Your task to perform on an android device: Show me the alarms in the clock app Image 0: 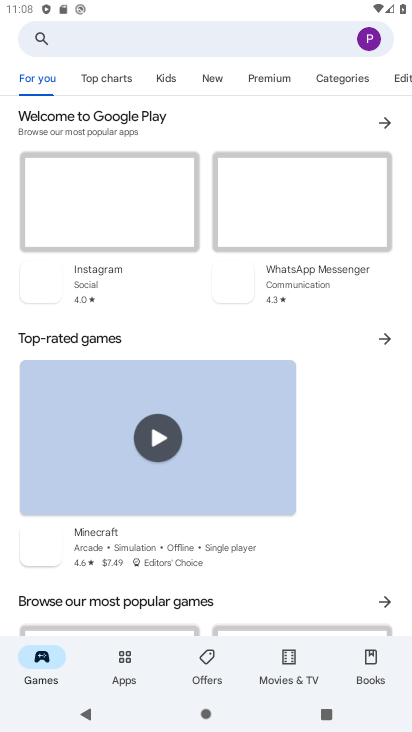
Step 0: press home button
Your task to perform on an android device: Show me the alarms in the clock app Image 1: 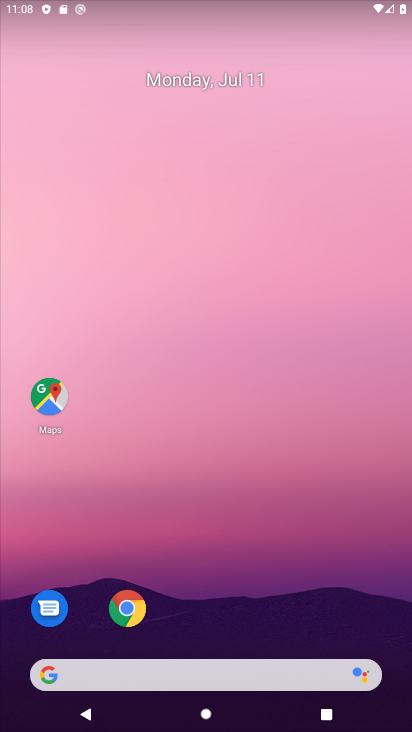
Step 1: drag from (163, 644) to (197, 70)
Your task to perform on an android device: Show me the alarms in the clock app Image 2: 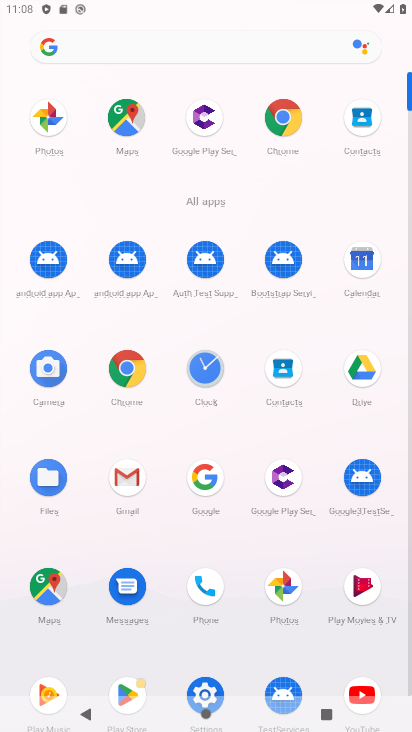
Step 2: click (203, 374)
Your task to perform on an android device: Show me the alarms in the clock app Image 3: 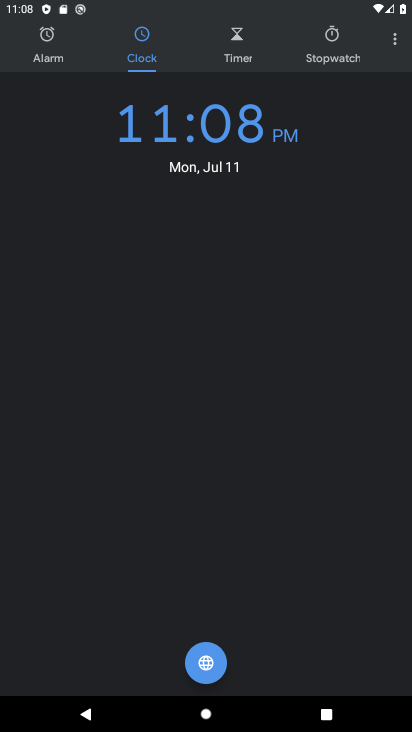
Step 3: click (53, 38)
Your task to perform on an android device: Show me the alarms in the clock app Image 4: 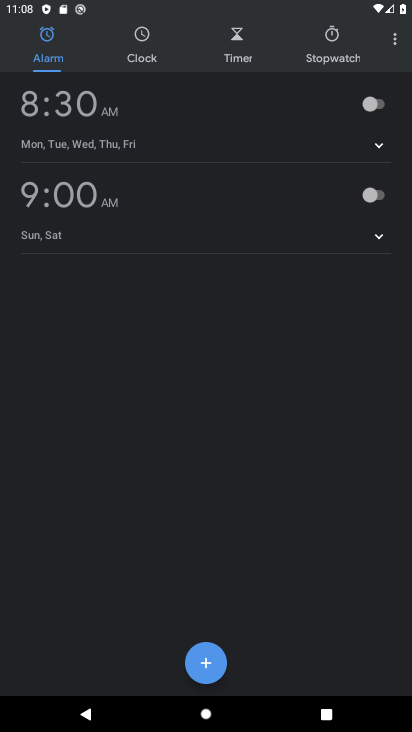
Step 4: task complete